Your task to perform on an android device: turn off picture-in-picture Image 0: 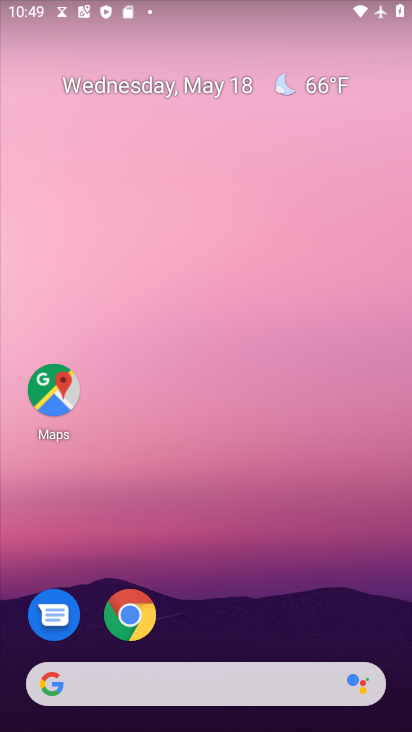
Step 0: drag from (224, 600) to (212, 0)
Your task to perform on an android device: turn off picture-in-picture Image 1: 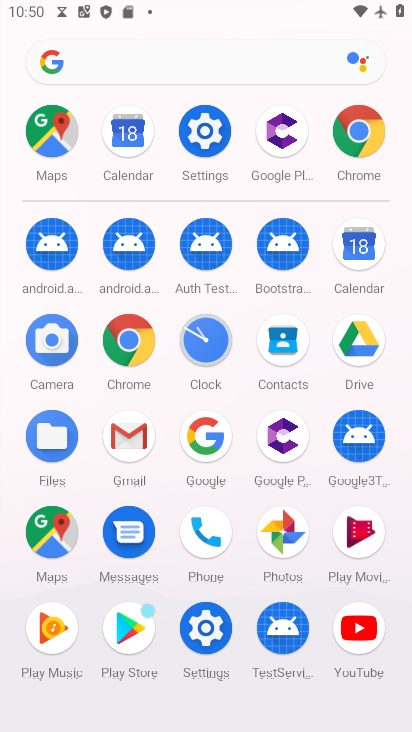
Step 1: click (205, 623)
Your task to perform on an android device: turn off picture-in-picture Image 2: 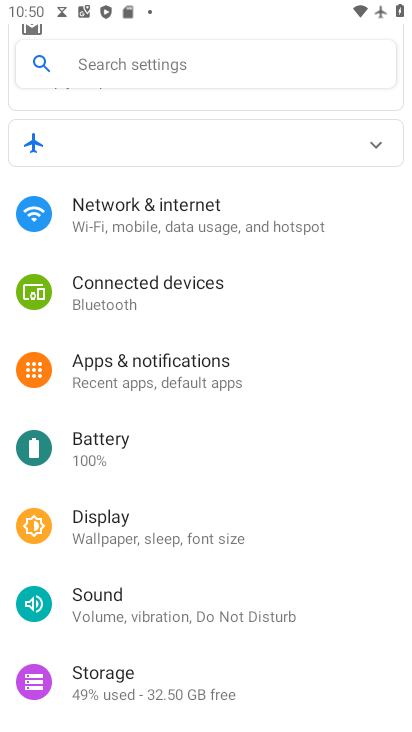
Step 2: click (176, 372)
Your task to perform on an android device: turn off picture-in-picture Image 3: 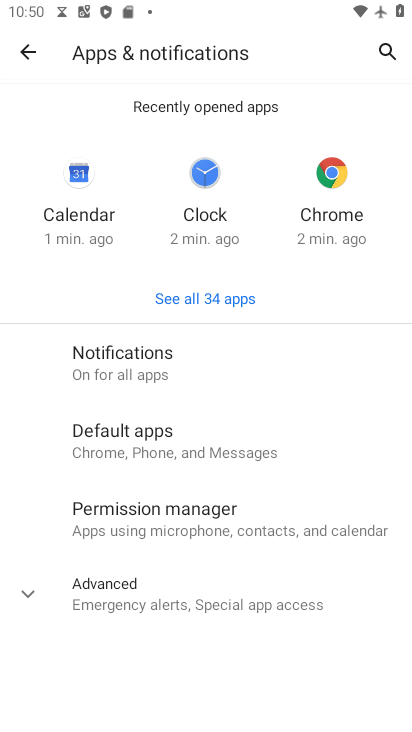
Step 3: click (46, 586)
Your task to perform on an android device: turn off picture-in-picture Image 4: 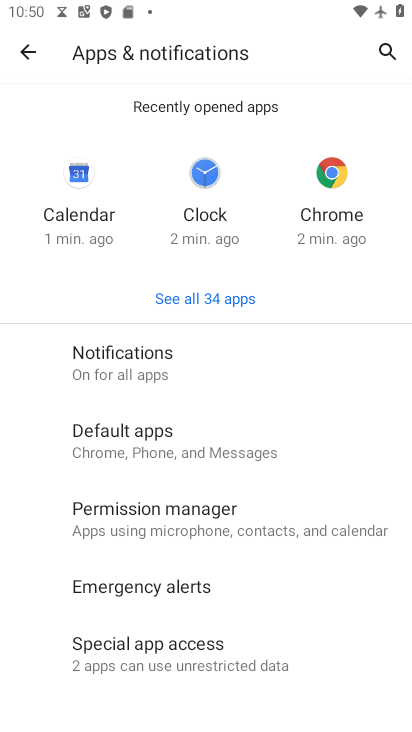
Step 4: drag from (327, 539) to (327, 227)
Your task to perform on an android device: turn off picture-in-picture Image 5: 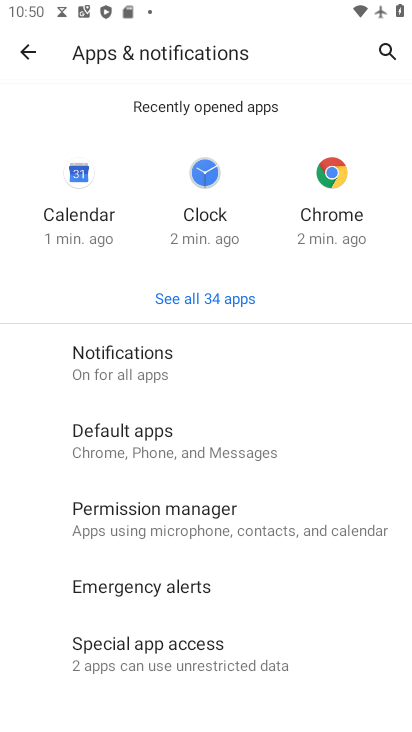
Step 5: click (164, 644)
Your task to perform on an android device: turn off picture-in-picture Image 6: 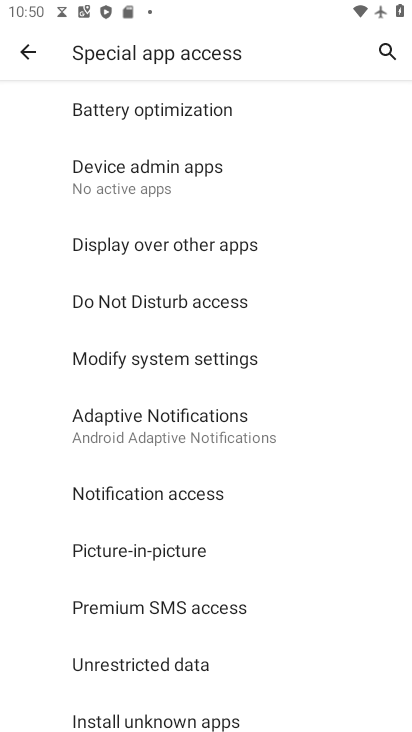
Step 6: click (156, 553)
Your task to perform on an android device: turn off picture-in-picture Image 7: 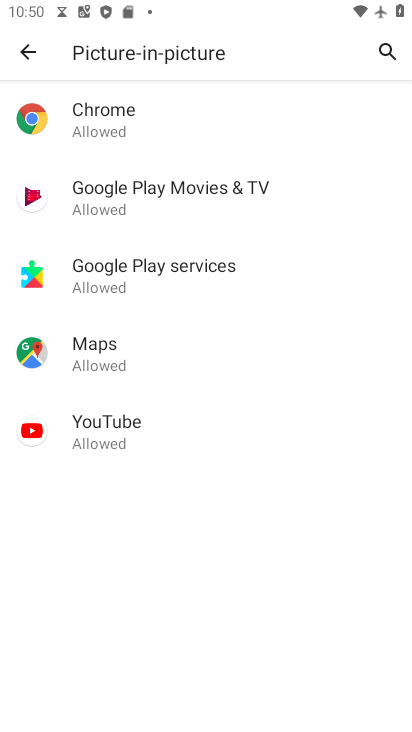
Step 7: click (175, 110)
Your task to perform on an android device: turn off picture-in-picture Image 8: 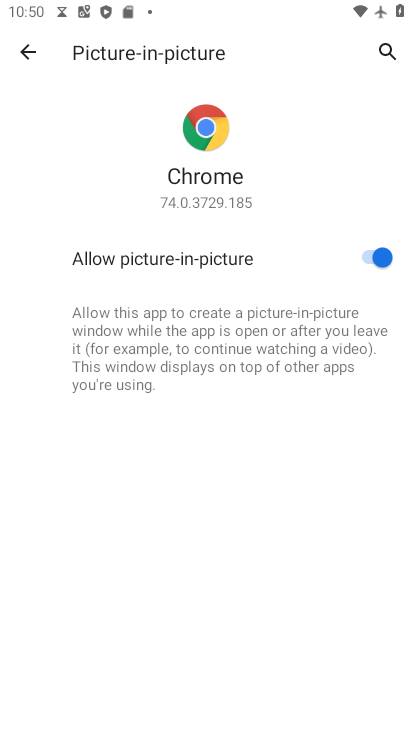
Step 8: click (359, 252)
Your task to perform on an android device: turn off picture-in-picture Image 9: 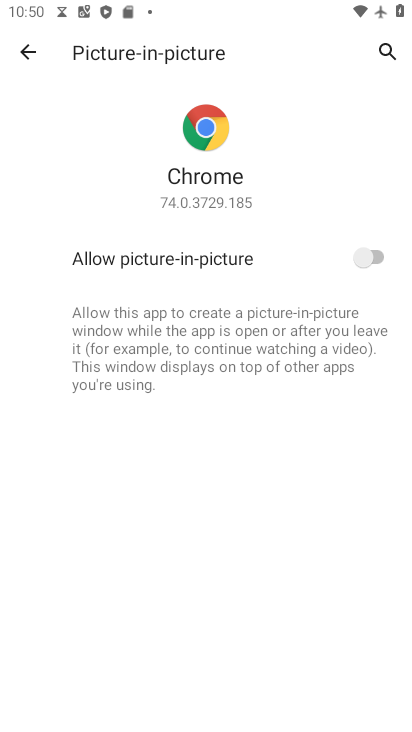
Step 9: click (29, 48)
Your task to perform on an android device: turn off picture-in-picture Image 10: 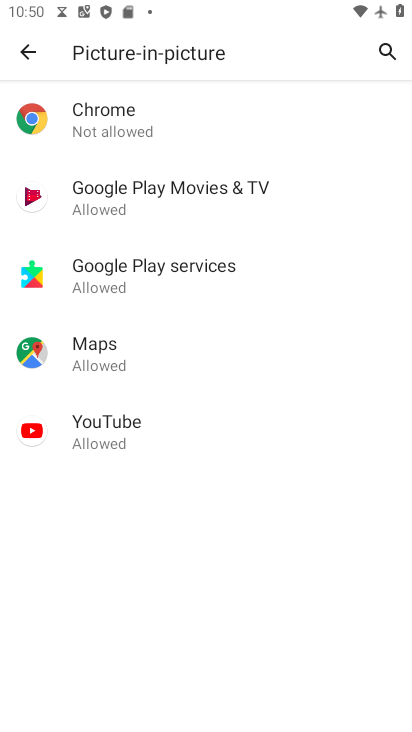
Step 10: click (155, 193)
Your task to perform on an android device: turn off picture-in-picture Image 11: 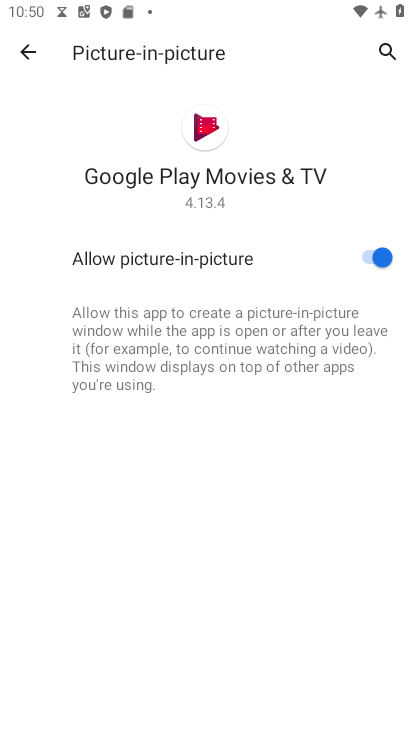
Step 11: click (376, 254)
Your task to perform on an android device: turn off picture-in-picture Image 12: 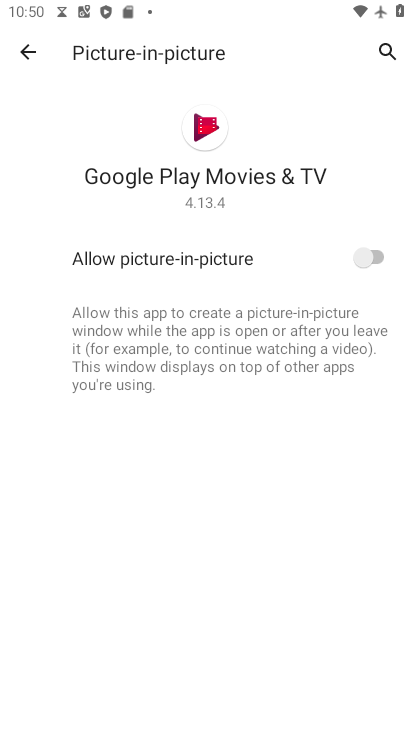
Step 12: click (32, 43)
Your task to perform on an android device: turn off picture-in-picture Image 13: 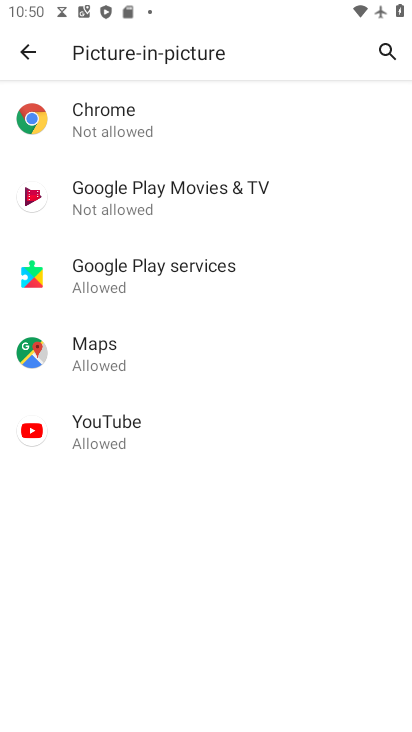
Step 13: click (158, 269)
Your task to perform on an android device: turn off picture-in-picture Image 14: 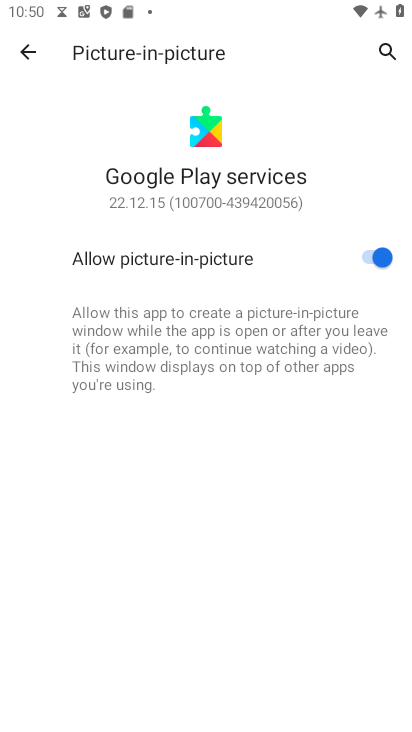
Step 14: click (369, 261)
Your task to perform on an android device: turn off picture-in-picture Image 15: 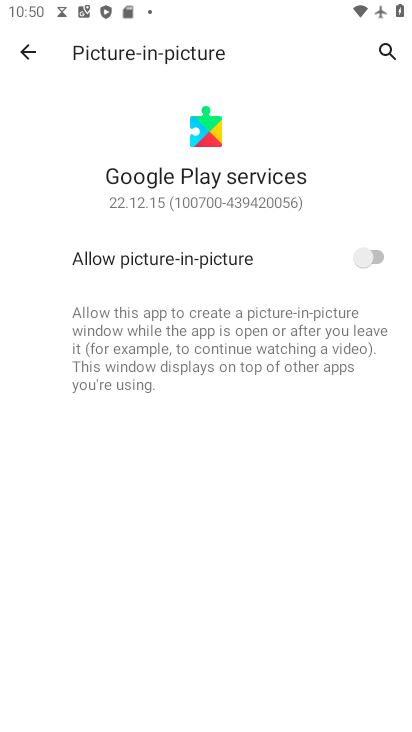
Step 15: click (30, 50)
Your task to perform on an android device: turn off picture-in-picture Image 16: 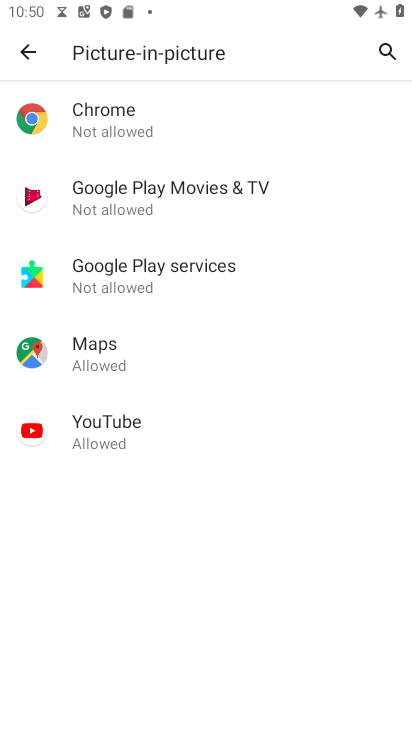
Step 16: click (116, 350)
Your task to perform on an android device: turn off picture-in-picture Image 17: 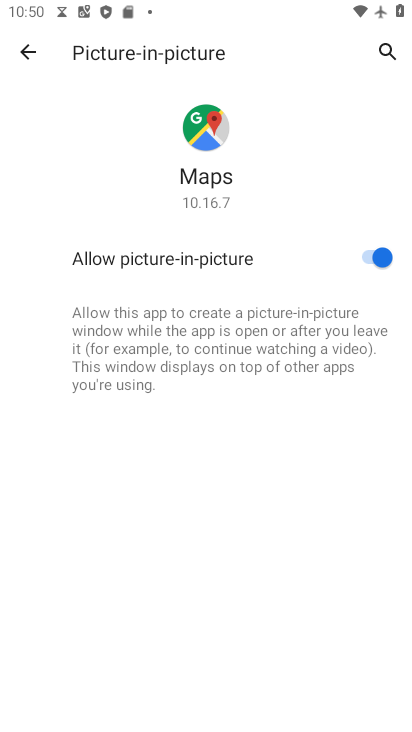
Step 17: click (383, 242)
Your task to perform on an android device: turn off picture-in-picture Image 18: 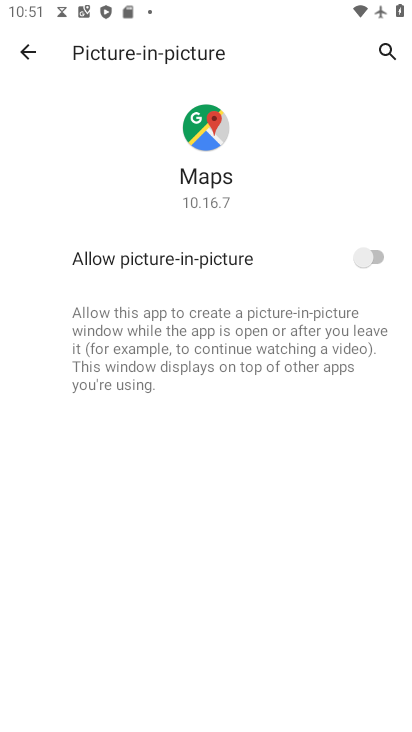
Step 18: click (28, 51)
Your task to perform on an android device: turn off picture-in-picture Image 19: 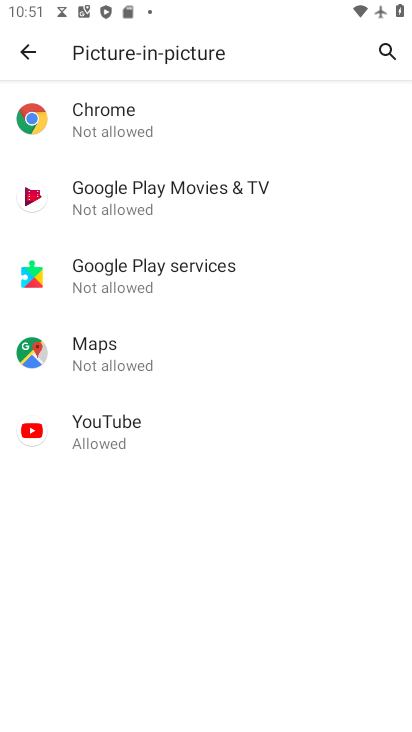
Step 19: click (124, 429)
Your task to perform on an android device: turn off picture-in-picture Image 20: 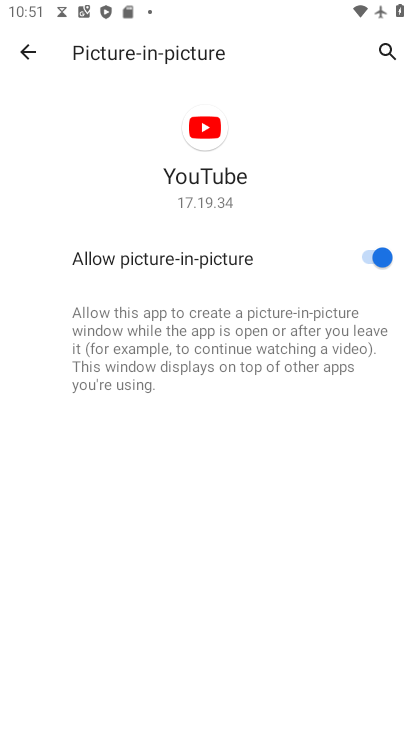
Step 20: click (368, 255)
Your task to perform on an android device: turn off picture-in-picture Image 21: 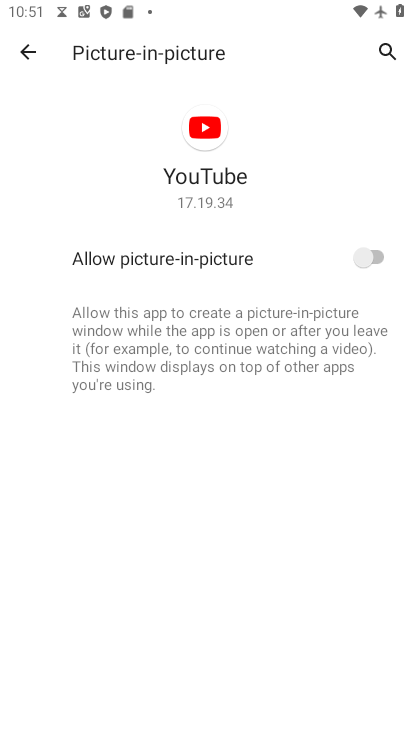
Step 21: click (23, 44)
Your task to perform on an android device: turn off picture-in-picture Image 22: 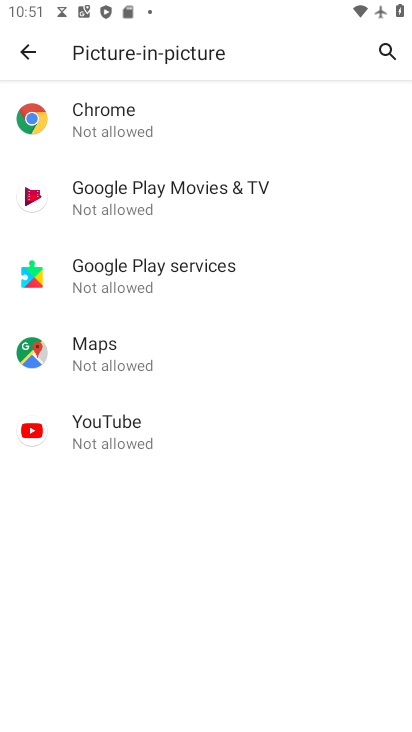
Step 22: task complete